Your task to perform on an android device: Go to calendar. Show me events next week Image 0: 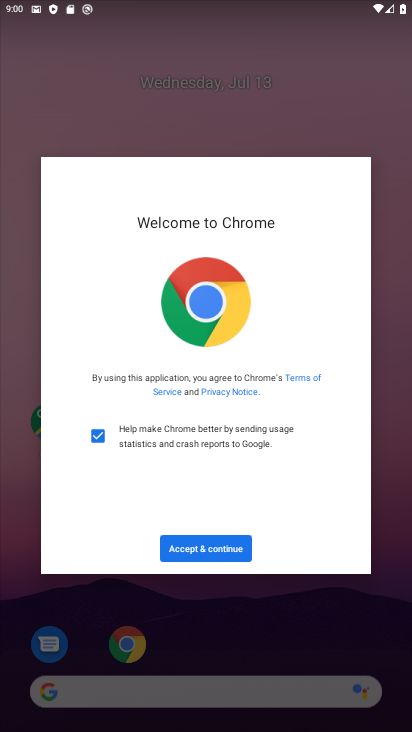
Step 0: press home button
Your task to perform on an android device: Go to calendar. Show me events next week Image 1: 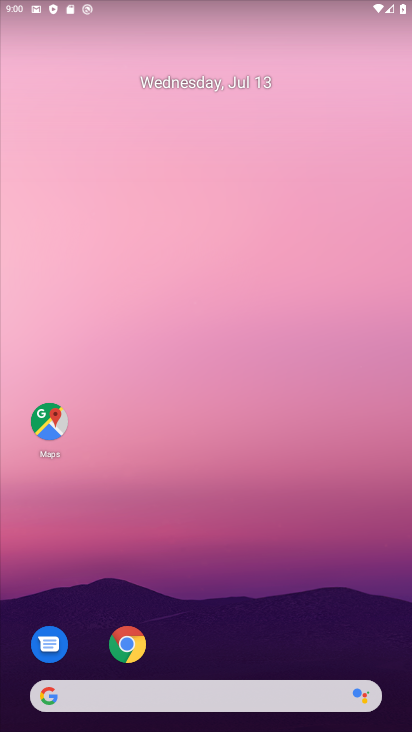
Step 1: drag from (200, 617) to (171, 153)
Your task to perform on an android device: Go to calendar. Show me events next week Image 2: 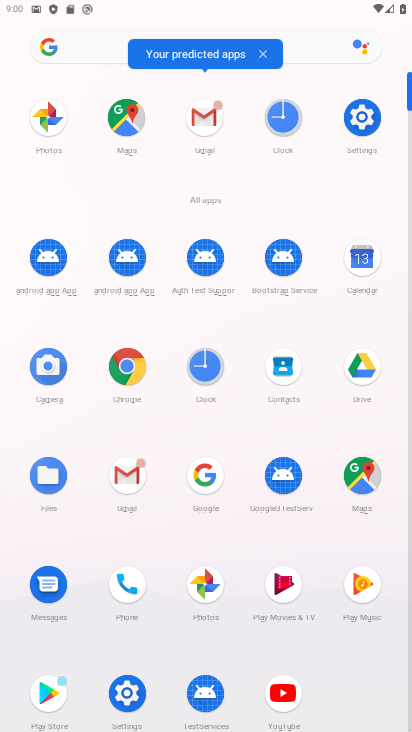
Step 2: click (359, 273)
Your task to perform on an android device: Go to calendar. Show me events next week Image 3: 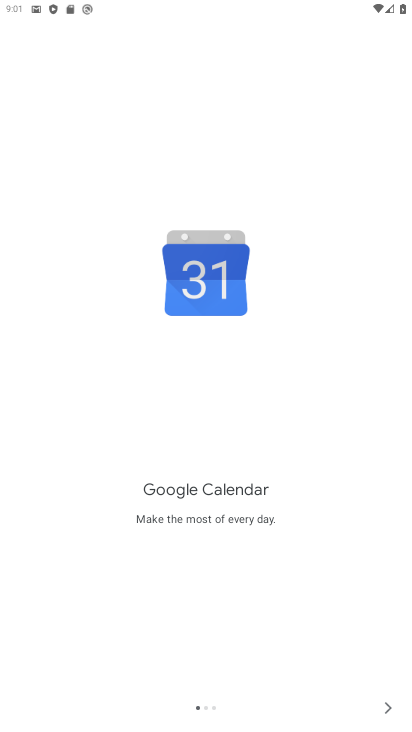
Step 3: click (388, 706)
Your task to perform on an android device: Go to calendar. Show me events next week Image 4: 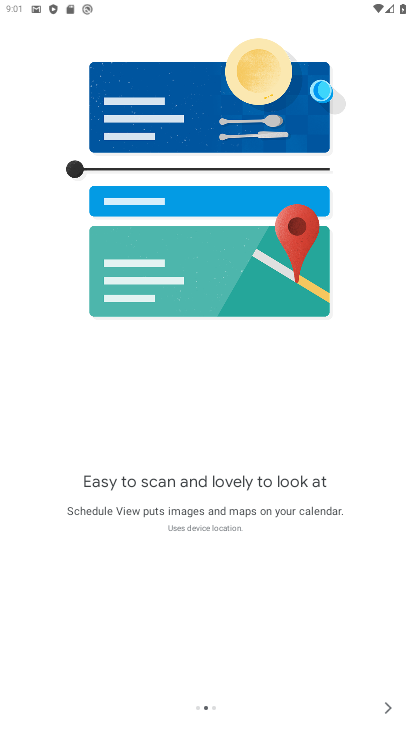
Step 4: click (387, 712)
Your task to perform on an android device: Go to calendar. Show me events next week Image 5: 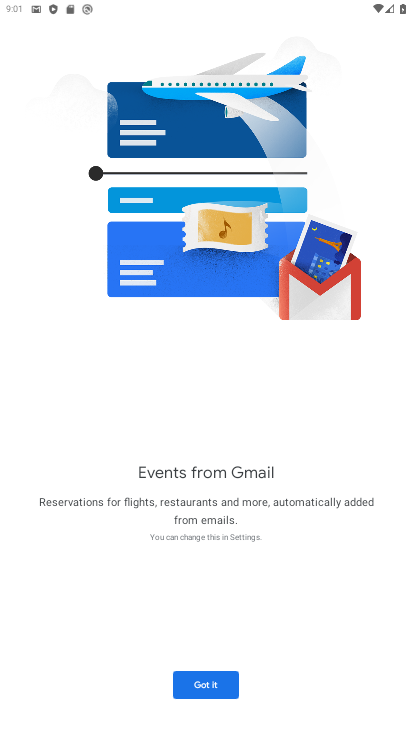
Step 5: click (194, 683)
Your task to perform on an android device: Go to calendar. Show me events next week Image 6: 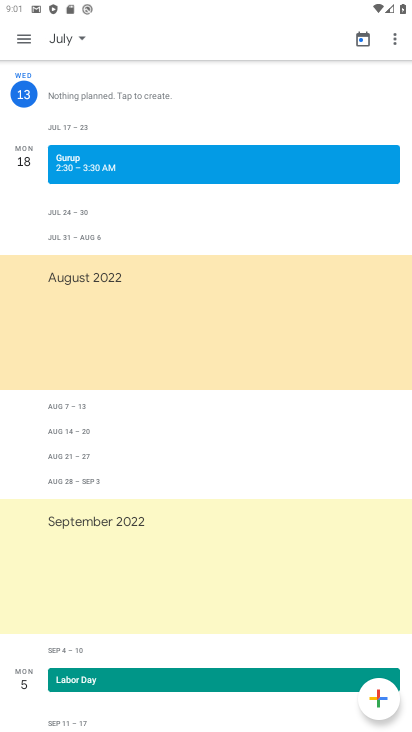
Step 6: click (16, 38)
Your task to perform on an android device: Go to calendar. Show me events next week Image 7: 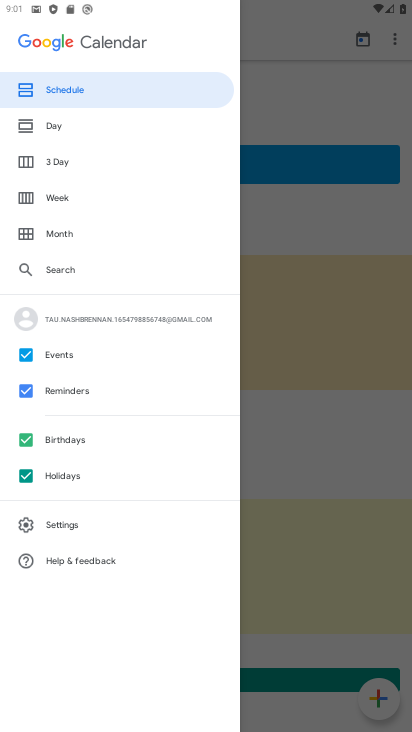
Step 7: click (24, 475)
Your task to perform on an android device: Go to calendar. Show me events next week Image 8: 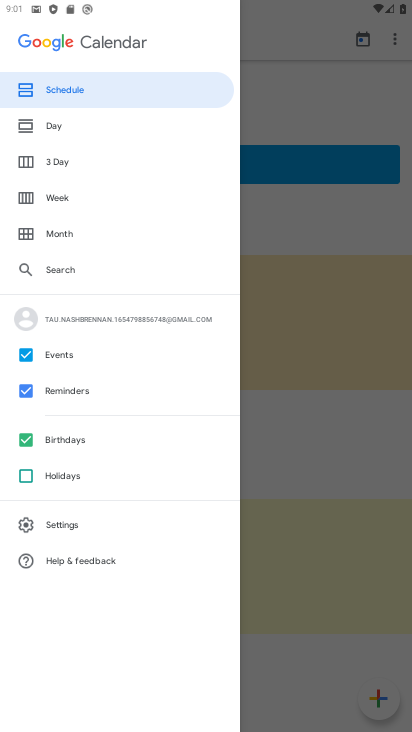
Step 8: click (21, 432)
Your task to perform on an android device: Go to calendar. Show me events next week Image 9: 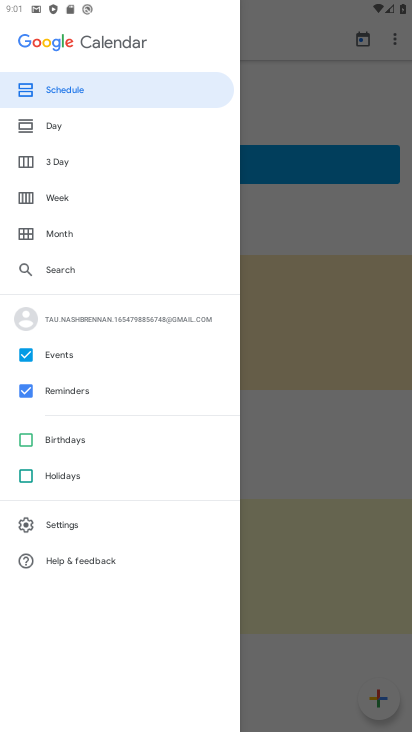
Step 9: click (23, 382)
Your task to perform on an android device: Go to calendar. Show me events next week Image 10: 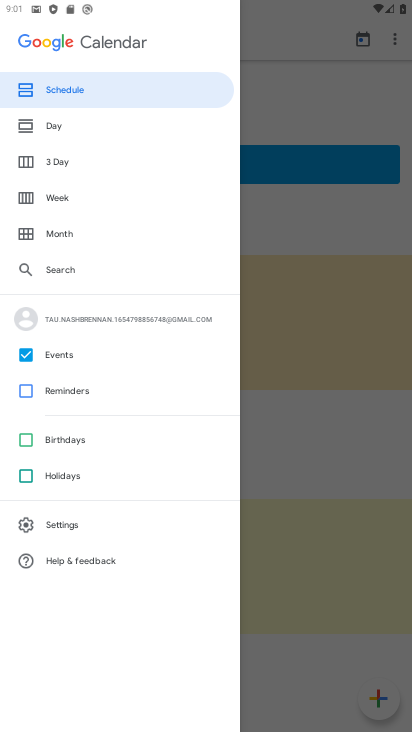
Step 10: click (63, 199)
Your task to perform on an android device: Go to calendar. Show me events next week Image 11: 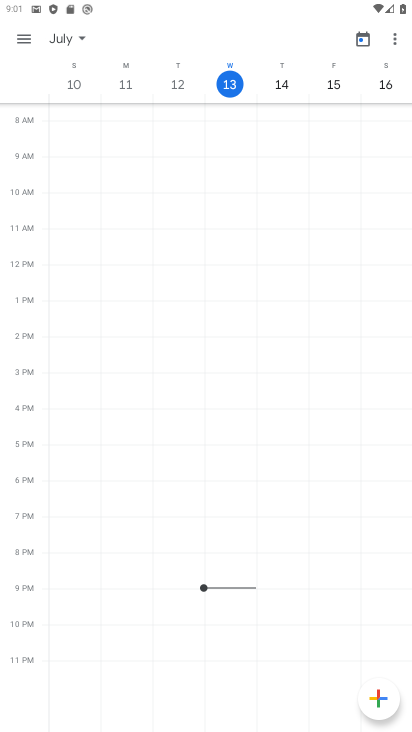
Step 11: task complete